Your task to perform on an android device: Search for sushi restaurants on Maps Image 0: 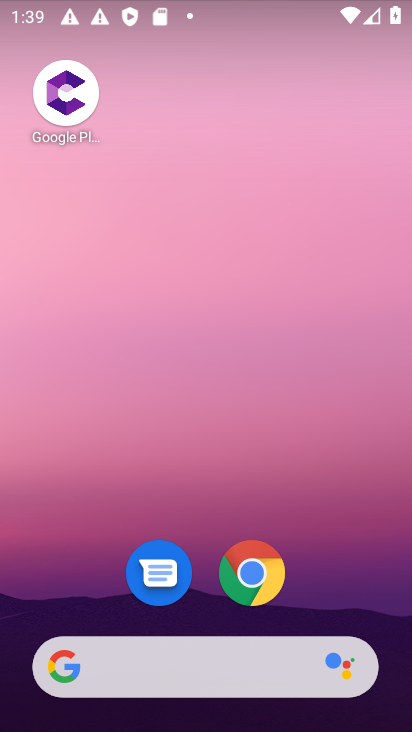
Step 0: drag from (28, 592) to (287, 121)
Your task to perform on an android device: Search for sushi restaurants on Maps Image 1: 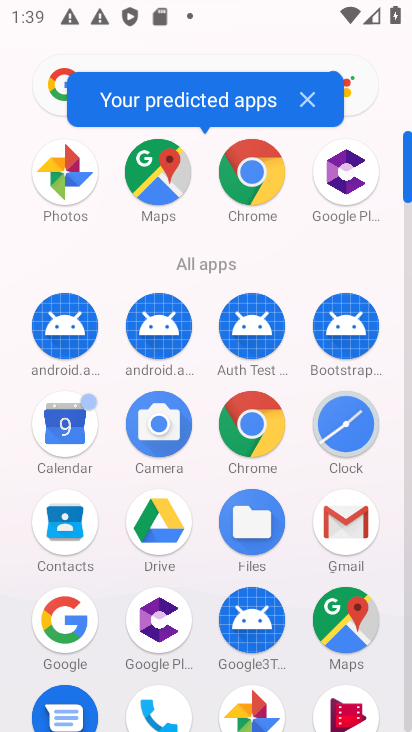
Step 1: click (353, 611)
Your task to perform on an android device: Search for sushi restaurants on Maps Image 2: 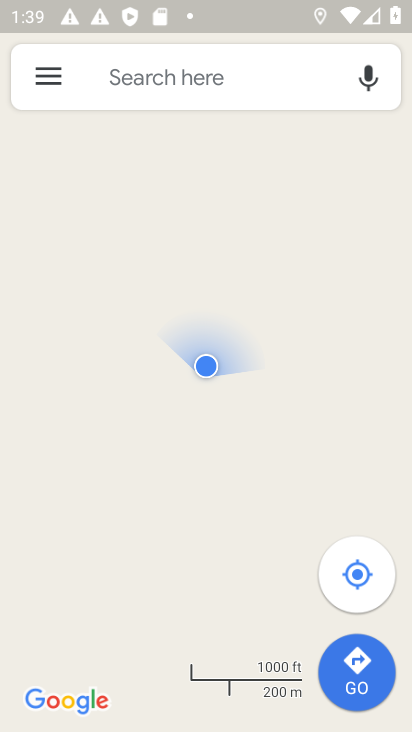
Step 2: click (217, 82)
Your task to perform on an android device: Search for sushi restaurants on Maps Image 3: 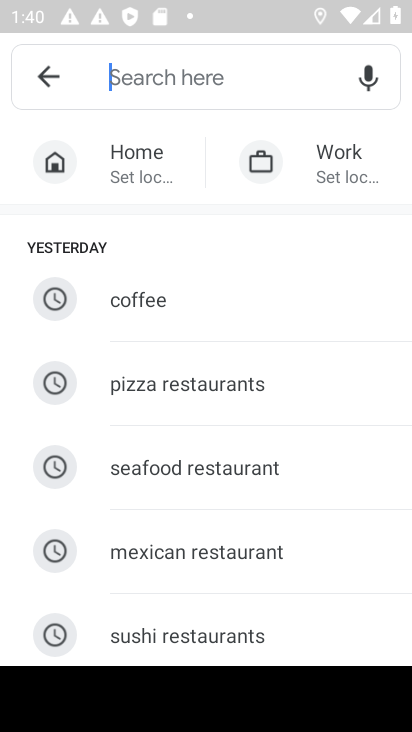
Step 3: click (125, 631)
Your task to perform on an android device: Search for sushi restaurants on Maps Image 4: 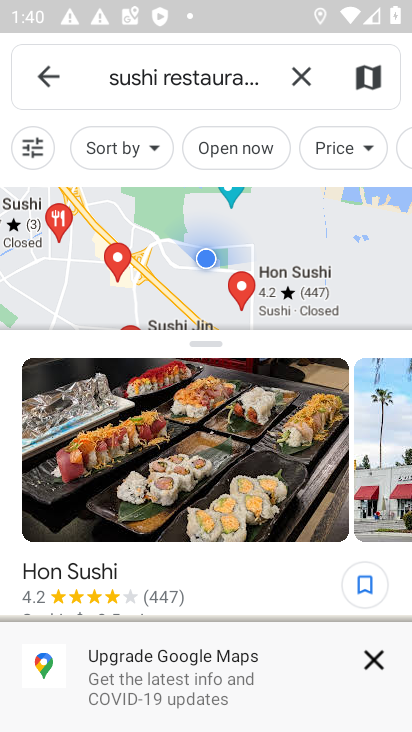
Step 4: task complete